Your task to perform on an android device: see creations saved in the google photos Image 0: 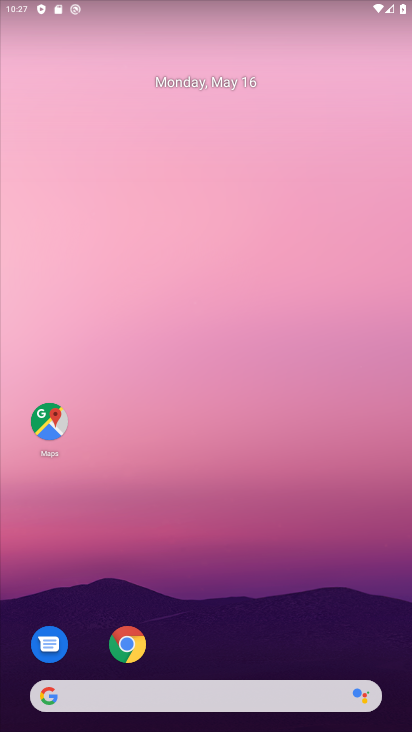
Step 0: drag from (197, 722) to (197, 231)
Your task to perform on an android device: see creations saved in the google photos Image 1: 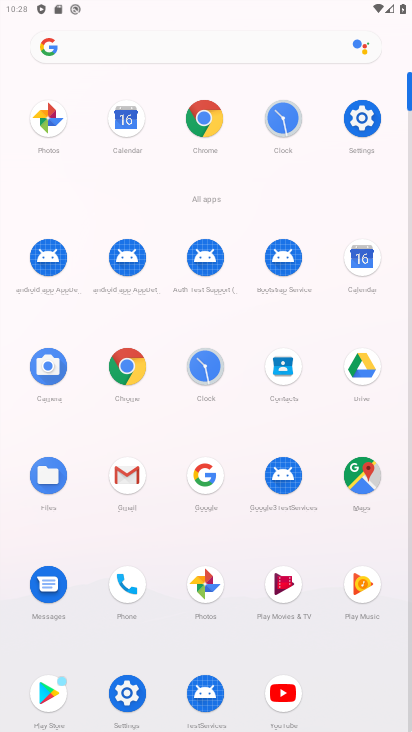
Step 1: click (206, 578)
Your task to perform on an android device: see creations saved in the google photos Image 2: 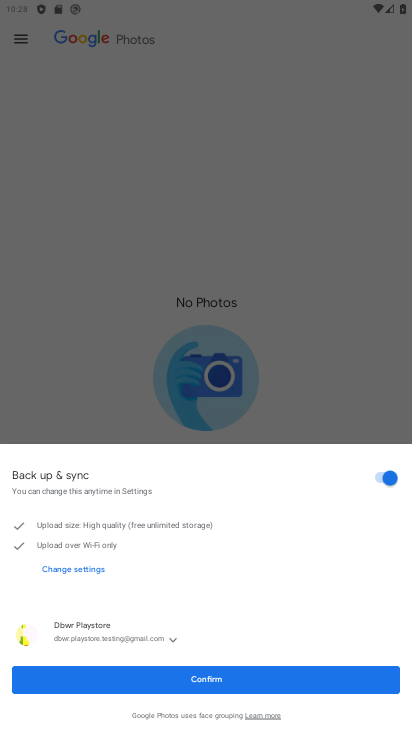
Step 2: click (209, 677)
Your task to perform on an android device: see creations saved in the google photos Image 3: 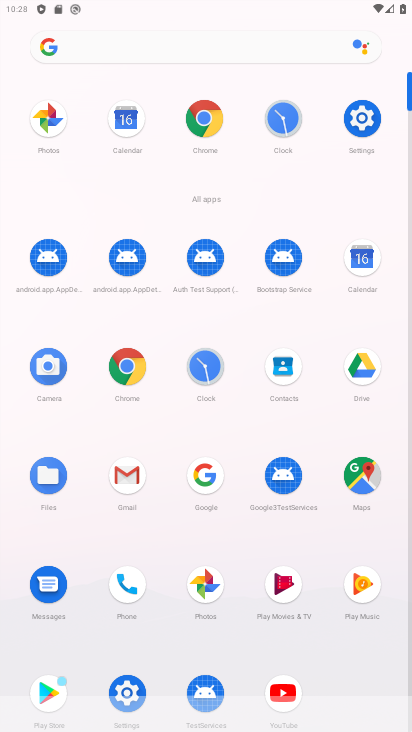
Step 3: click (201, 586)
Your task to perform on an android device: see creations saved in the google photos Image 4: 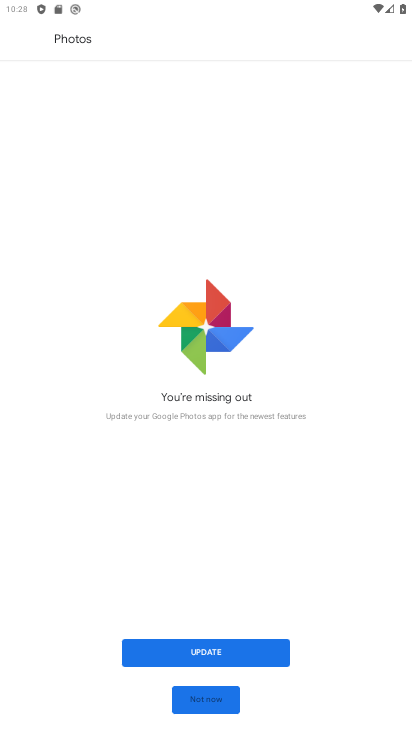
Step 4: task complete